Your task to perform on an android device: Show me popular videos on Youtube Image 0: 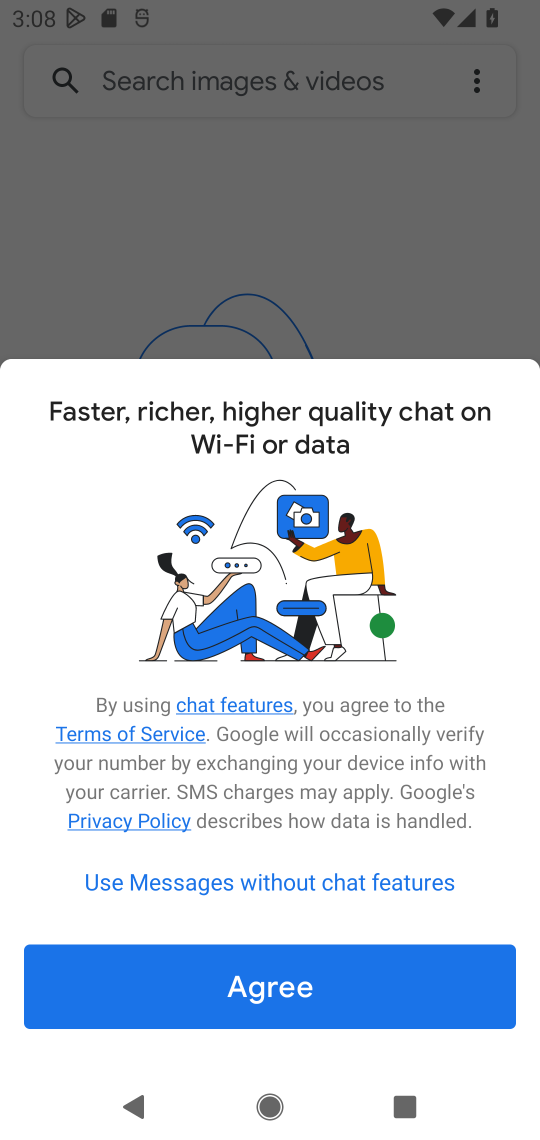
Step 0: click (343, 1000)
Your task to perform on an android device: Show me popular videos on Youtube Image 1: 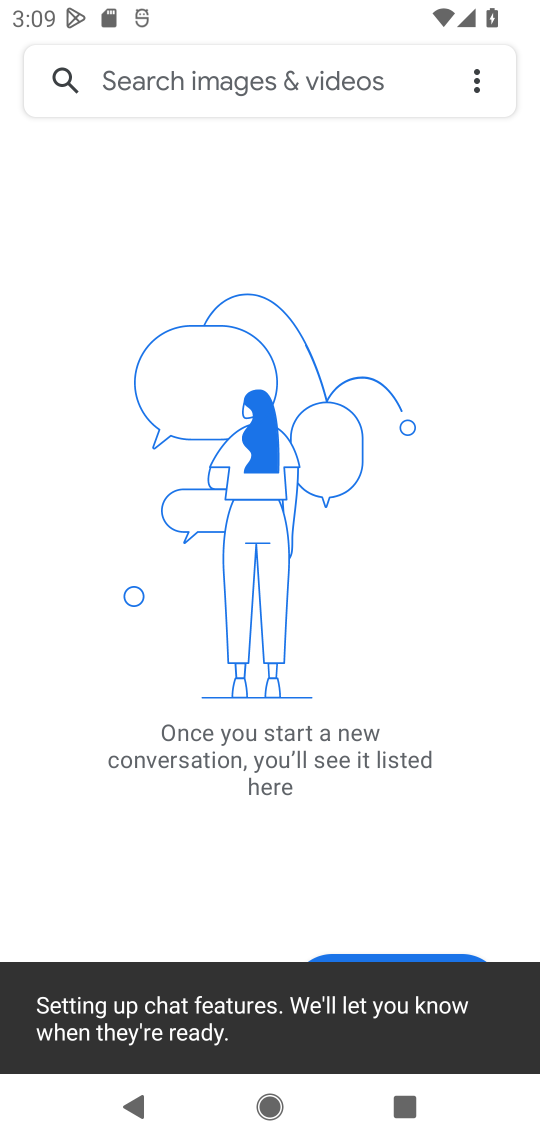
Step 1: task complete